Your task to perform on an android device: change notifications settings Image 0: 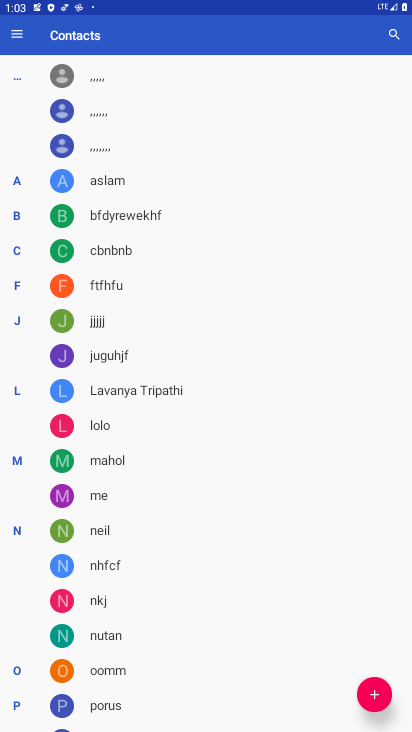
Step 0: press home button
Your task to perform on an android device: change notifications settings Image 1: 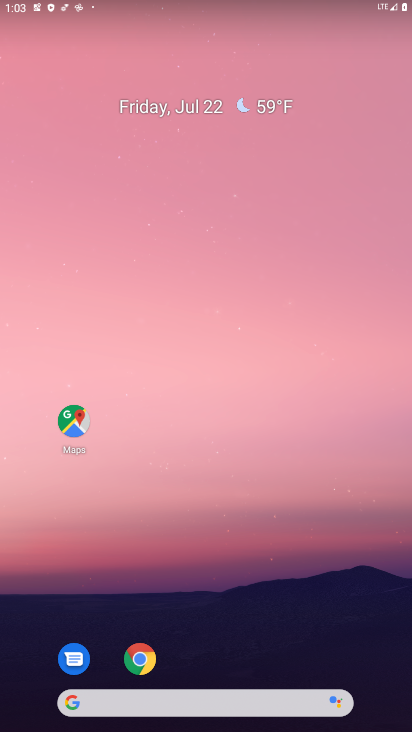
Step 1: drag from (356, 591) to (411, 34)
Your task to perform on an android device: change notifications settings Image 2: 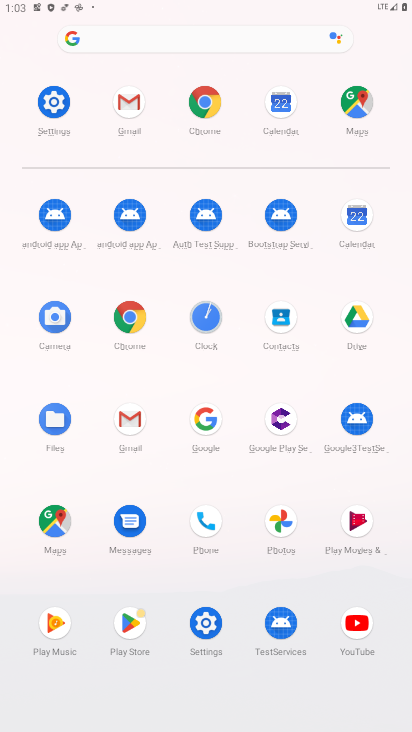
Step 2: click (79, 97)
Your task to perform on an android device: change notifications settings Image 3: 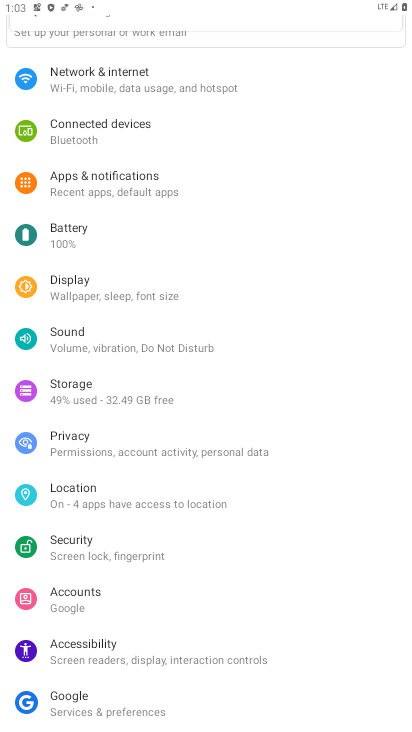
Step 3: click (109, 184)
Your task to perform on an android device: change notifications settings Image 4: 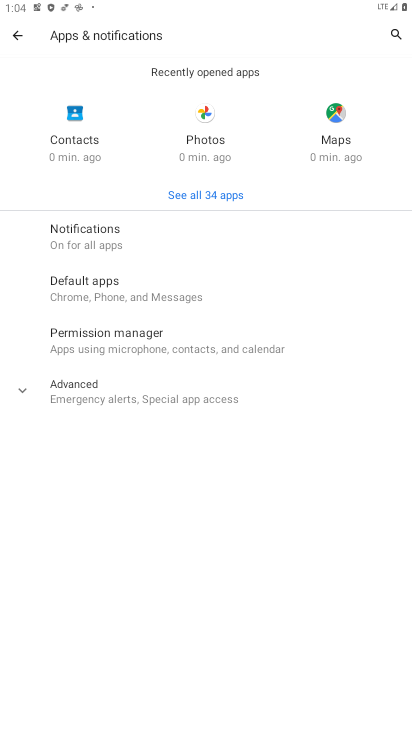
Step 4: click (98, 237)
Your task to perform on an android device: change notifications settings Image 5: 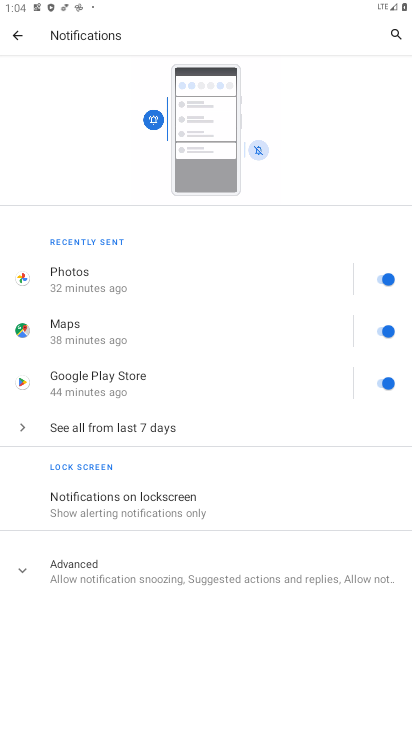
Step 5: click (89, 570)
Your task to perform on an android device: change notifications settings Image 6: 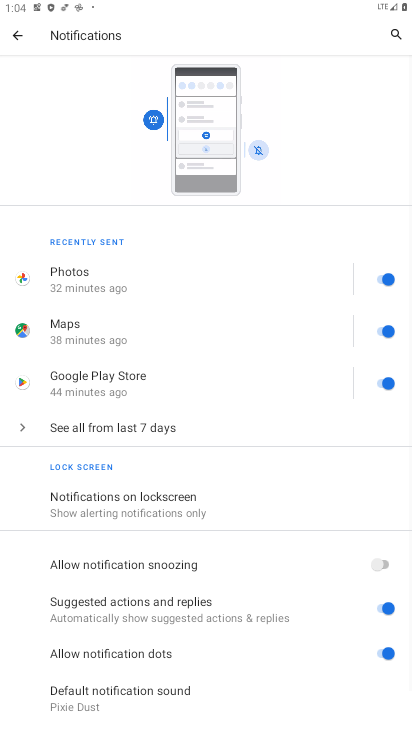
Step 6: drag from (194, 683) to (258, 296)
Your task to perform on an android device: change notifications settings Image 7: 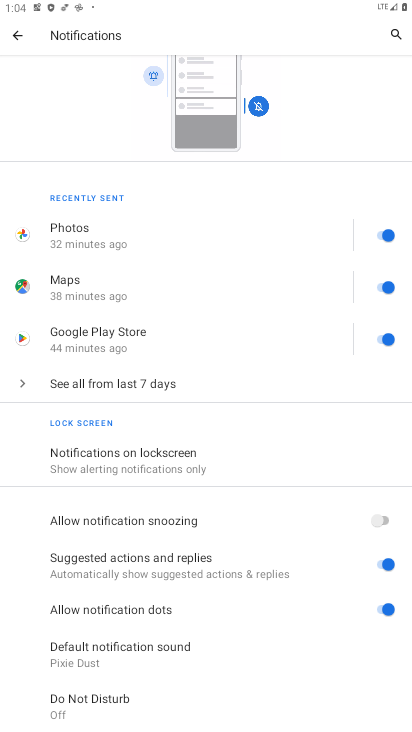
Step 7: drag from (175, 476) to (249, 685)
Your task to perform on an android device: change notifications settings Image 8: 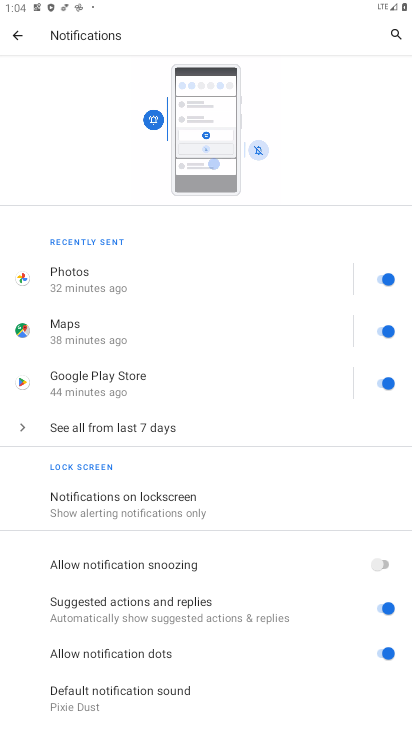
Step 8: click (394, 283)
Your task to perform on an android device: change notifications settings Image 9: 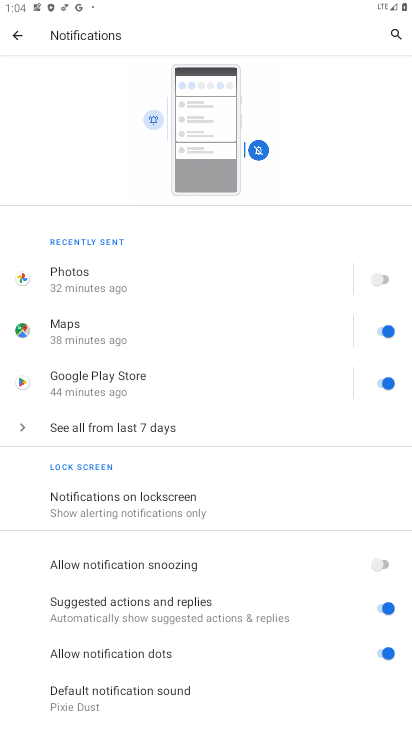
Step 9: task complete